Your task to perform on an android device: set default search engine in the chrome app Image 0: 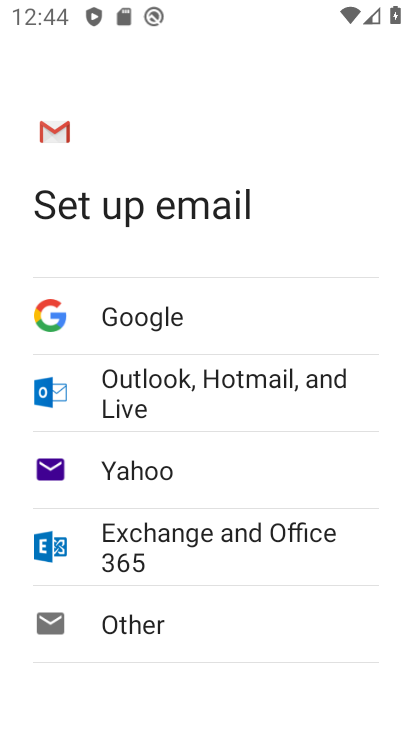
Step 0: press home button
Your task to perform on an android device: set default search engine in the chrome app Image 1: 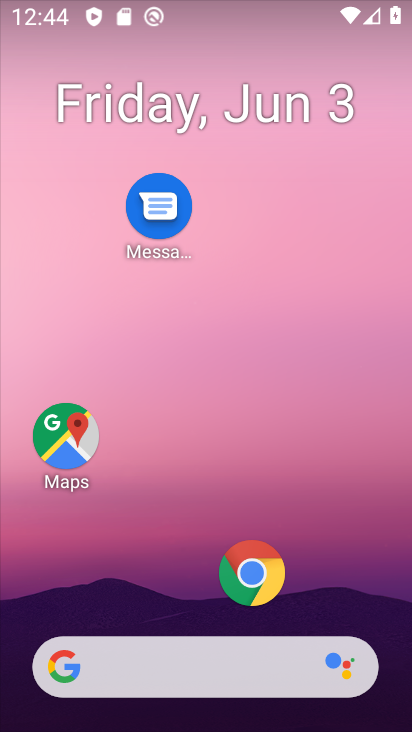
Step 1: click (256, 562)
Your task to perform on an android device: set default search engine in the chrome app Image 2: 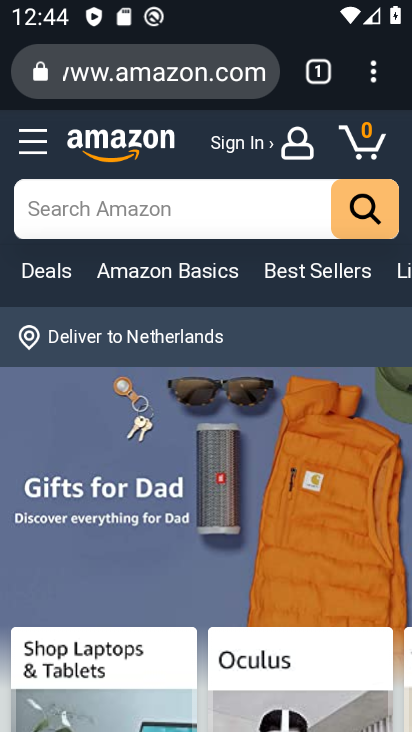
Step 2: click (376, 72)
Your task to perform on an android device: set default search engine in the chrome app Image 3: 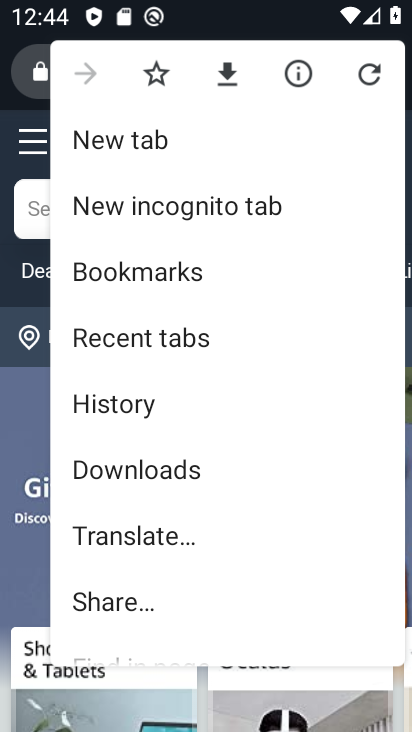
Step 3: drag from (239, 553) to (233, 195)
Your task to perform on an android device: set default search engine in the chrome app Image 4: 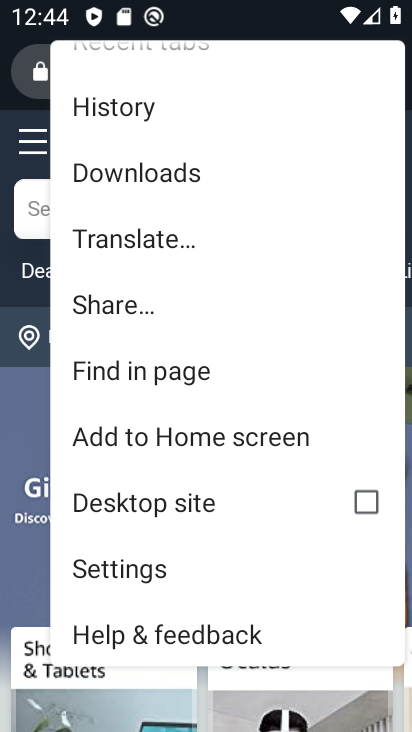
Step 4: click (149, 573)
Your task to perform on an android device: set default search engine in the chrome app Image 5: 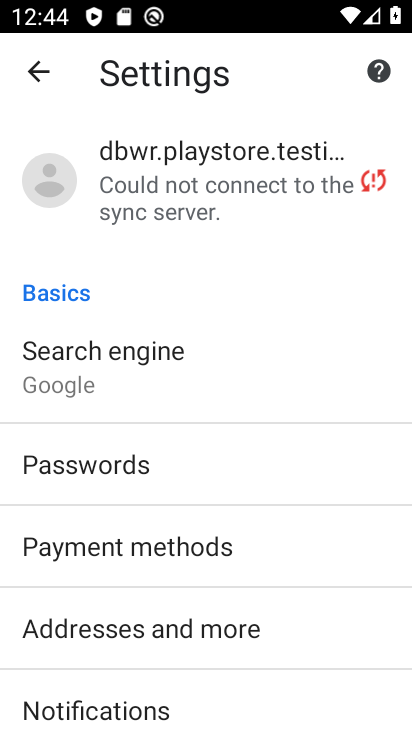
Step 5: click (99, 360)
Your task to perform on an android device: set default search engine in the chrome app Image 6: 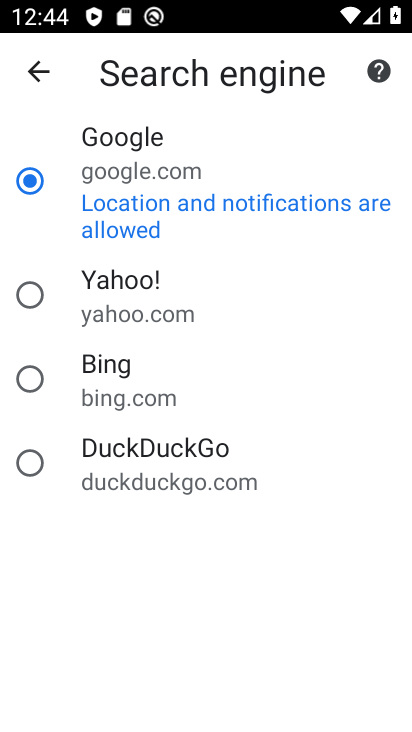
Step 6: click (96, 276)
Your task to perform on an android device: set default search engine in the chrome app Image 7: 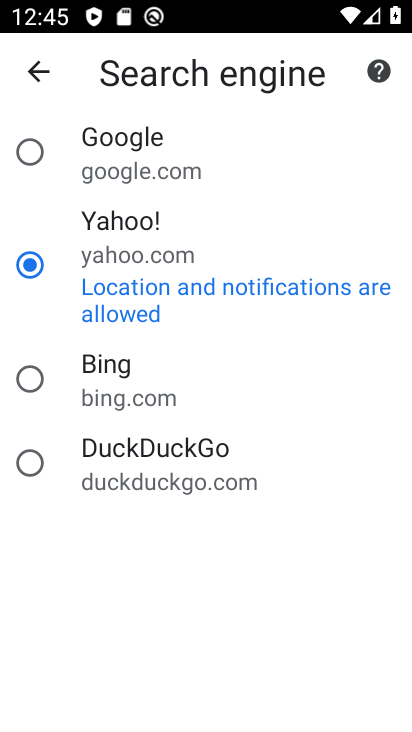
Step 7: task complete